Your task to perform on an android device: see tabs open on other devices in the chrome app Image 0: 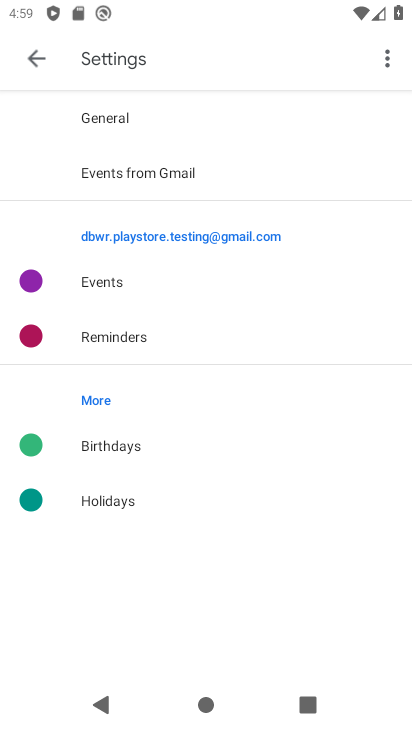
Step 0: press home button
Your task to perform on an android device: see tabs open on other devices in the chrome app Image 1: 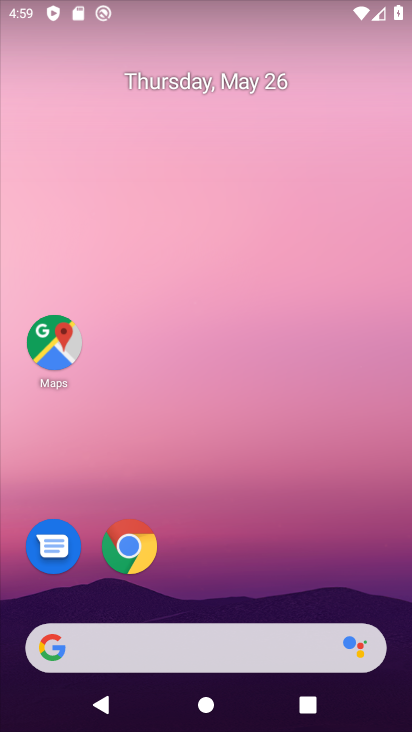
Step 1: drag from (280, 553) to (244, 201)
Your task to perform on an android device: see tabs open on other devices in the chrome app Image 2: 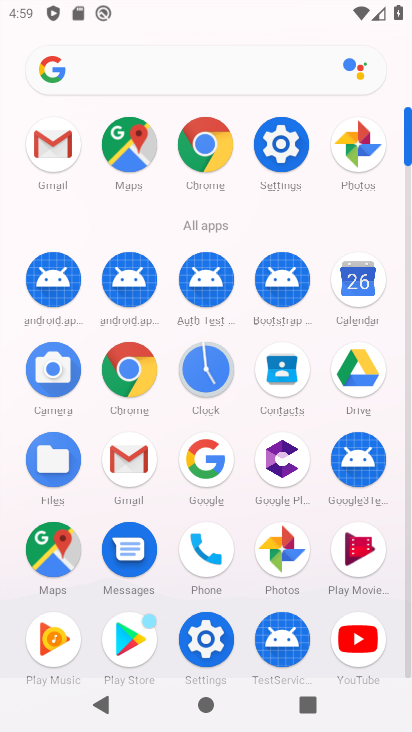
Step 2: click (211, 154)
Your task to perform on an android device: see tabs open on other devices in the chrome app Image 3: 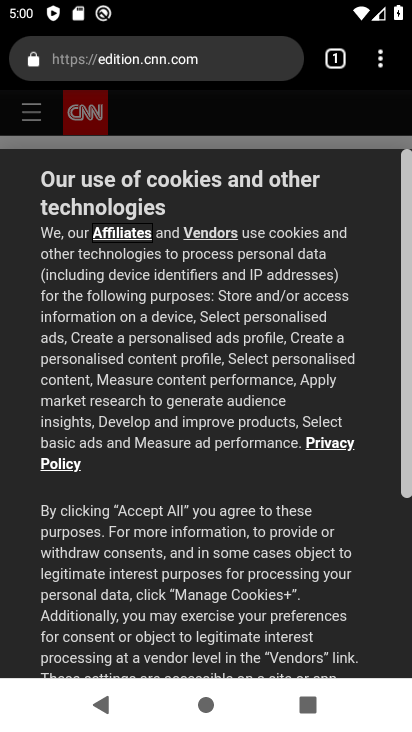
Step 3: click (385, 54)
Your task to perform on an android device: see tabs open on other devices in the chrome app Image 4: 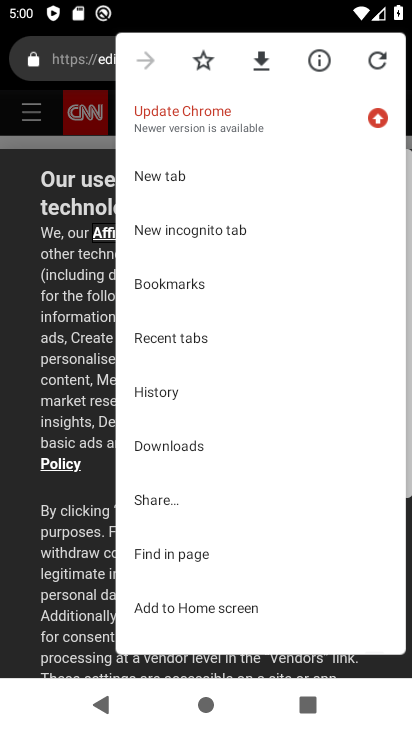
Step 4: click (217, 340)
Your task to perform on an android device: see tabs open on other devices in the chrome app Image 5: 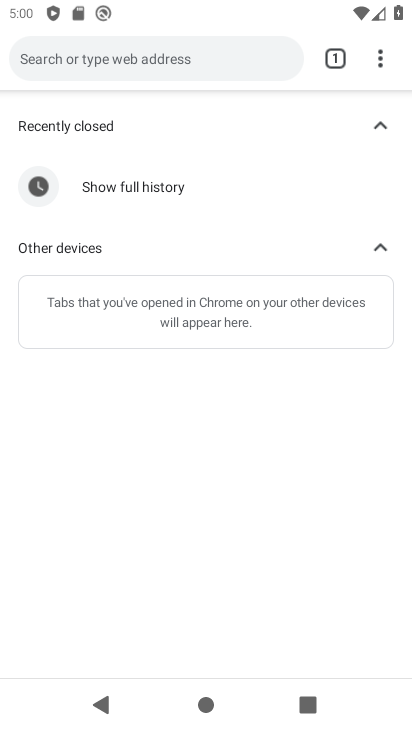
Step 5: task complete